Your task to perform on an android device: Show me productivity apps on the Play Store Image 0: 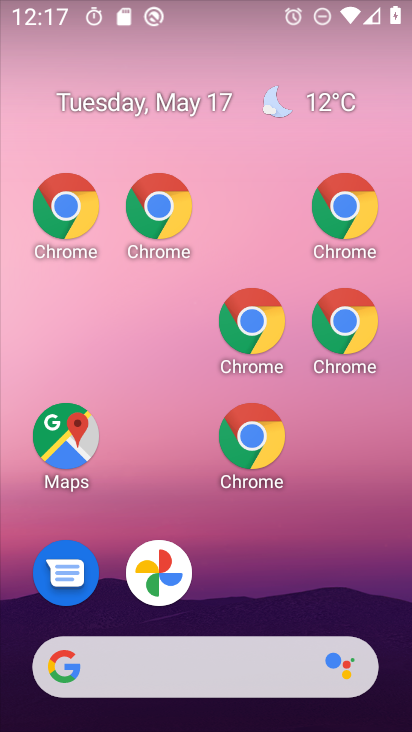
Step 0: drag from (283, 711) to (215, 69)
Your task to perform on an android device: Show me productivity apps on the Play Store Image 1: 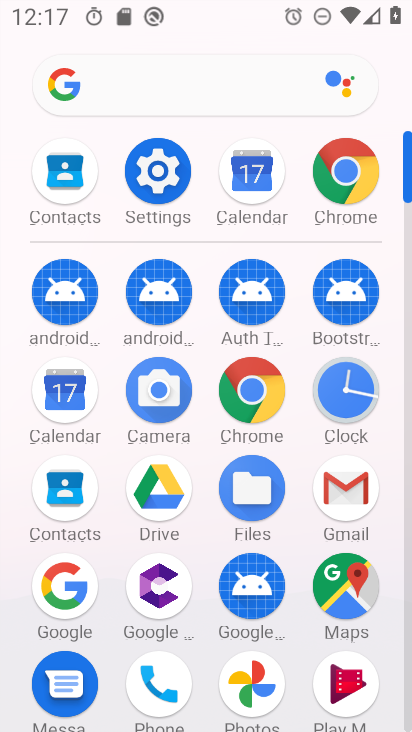
Step 1: drag from (180, 532) to (177, 277)
Your task to perform on an android device: Show me productivity apps on the Play Store Image 2: 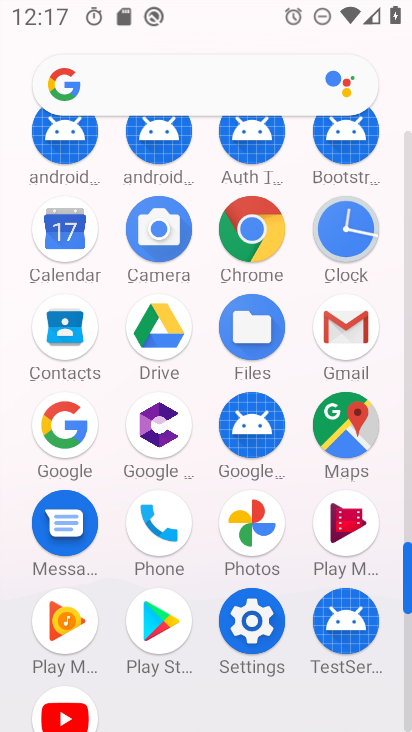
Step 2: click (138, 620)
Your task to perform on an android device: Show me productivity apps on the Play Store Image 3: 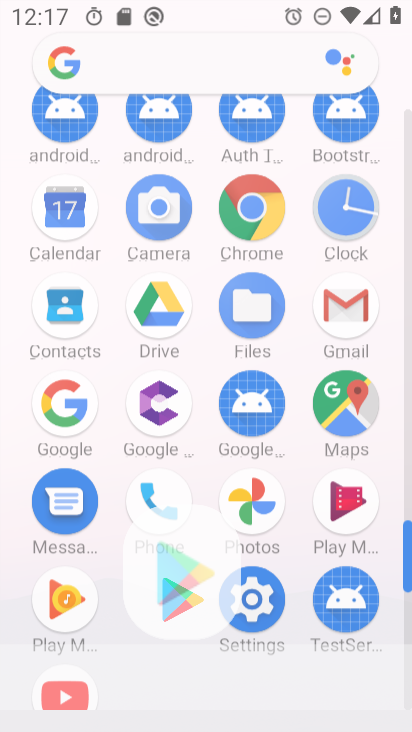
Step 3: click (140, 617)
Your task to perform on an android device: Show me productivity apps on the Play Store Image 4: 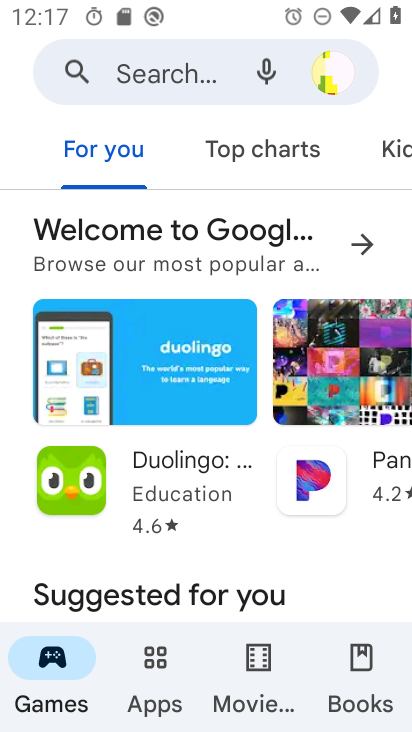
Step 4: click (116, 63)
Your task to perform on an android device: Show me productivity apps on the Play Store Image 5: 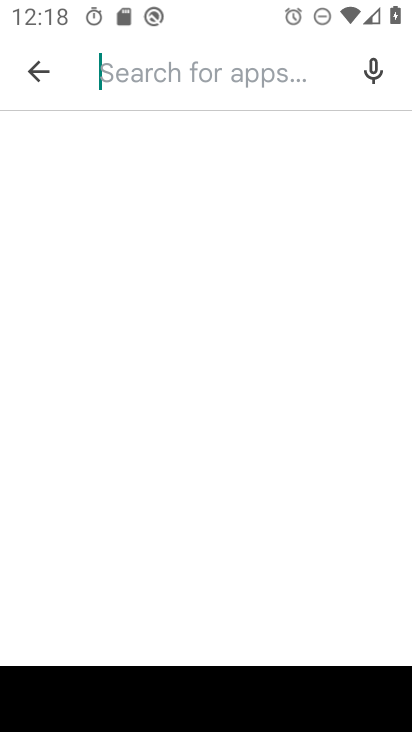
Step 5: type "productivity app"
Your task to perform on an android device: Show me productivity apps on the Play Store Image 6: 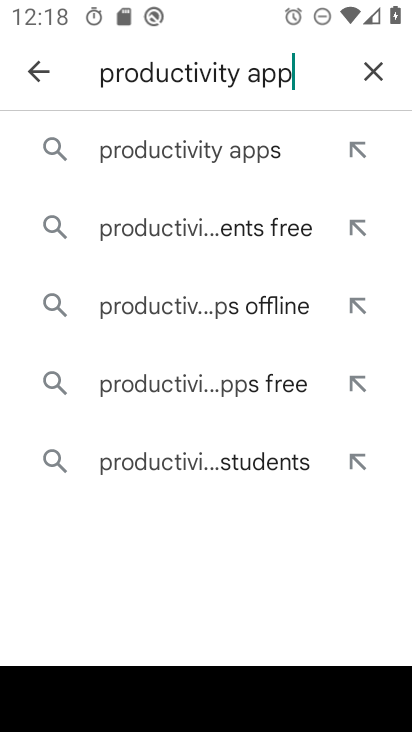
Step 6: click (178, 160)
Your task to perform on an android device: Show me productivity apps on the Play Store Image 7: 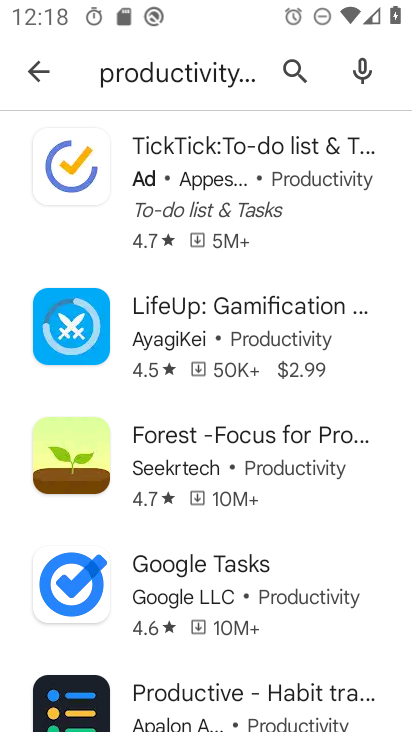
Step 7: drag from (238, 408) to (266, 262)
Your task to perform on an android device: Show me productivity apps on the Play Store Image 8: 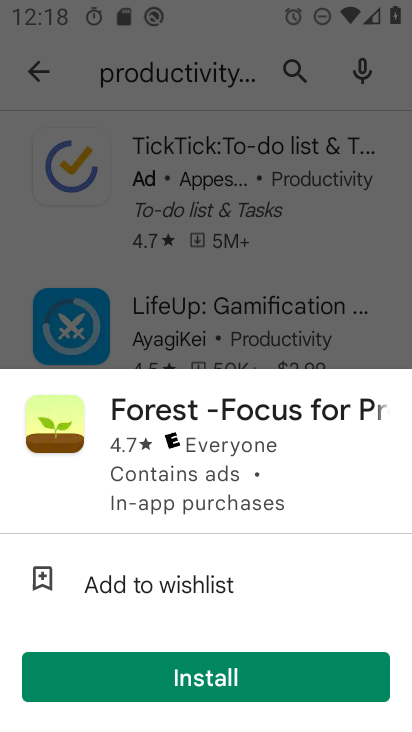
Step 8: click (337, 319)
Your task to perform on an android device: Show me productivity apps on the Play Store Image 9: 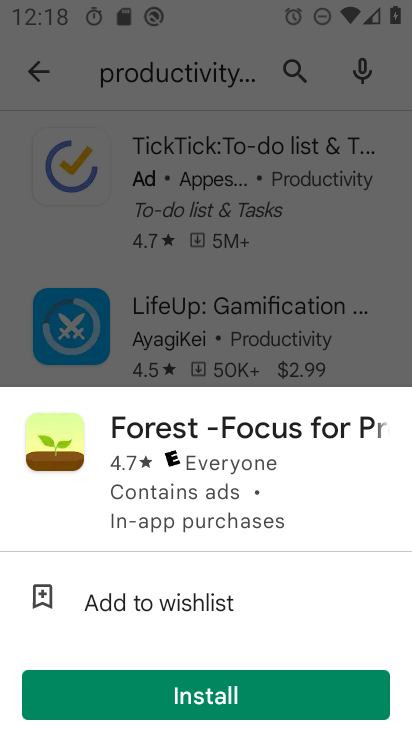
Step 9: click (337, 319)
Your task to perform on an android device: Show me productivity apps on the Play Store Image 10: 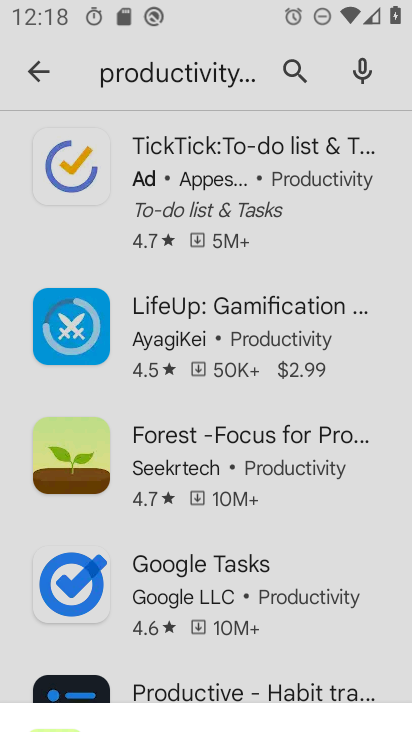
Step 10: click (337, 319)
Your task to perform on an android device: Show me productivity apps on the Play Store Image 11: 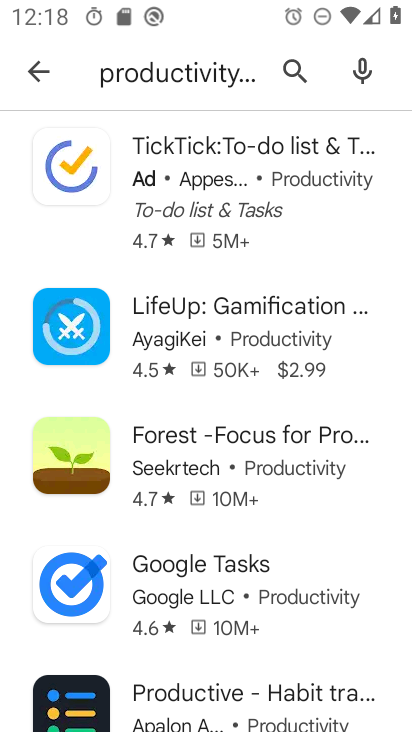
Step 11: task complete